Your task to perform on an android device: see sites visited before in the chrome app Image 0: 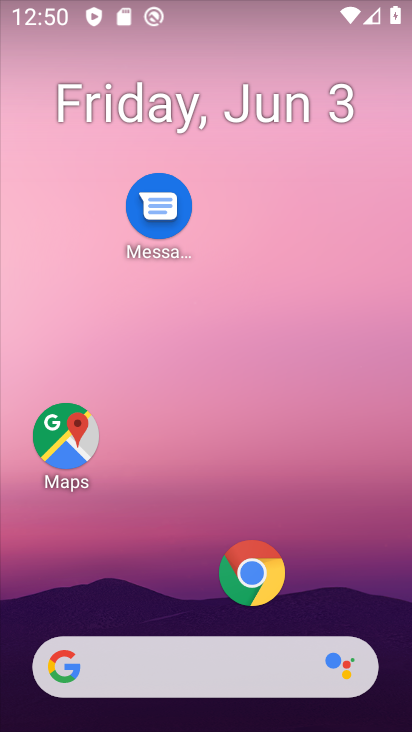
Step 0: click (268, 591)
Your task to perform on an android device: see sites visited before in the chrome app Image 1: 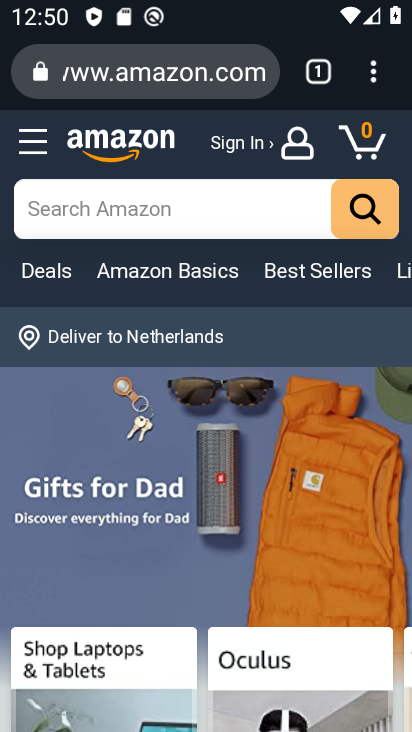
Step 1: click (381, 77)
Your task to perform on an android device: see sites visited before in the chrome app Image 2: 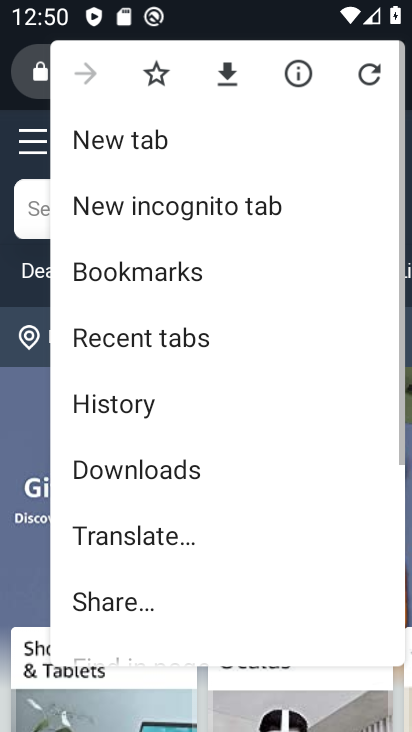
Step 2: click (110, 414)
Your task to perform on an android device: see sites visited before in the chrome app Image 3: 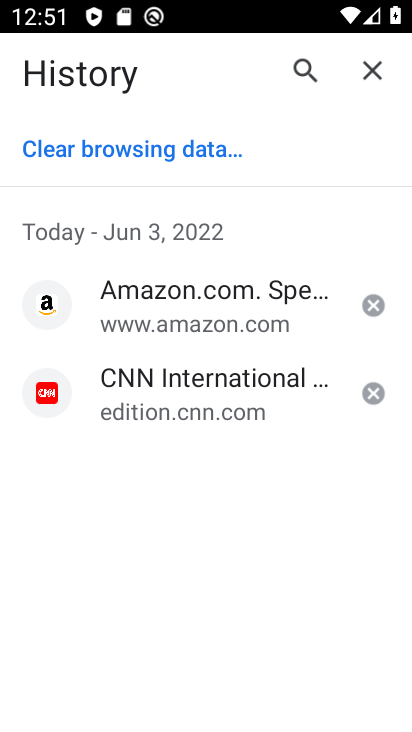
Step 3: task complete